Your task to perform on an android device: turn off smart reply in the gmail app Image 0: 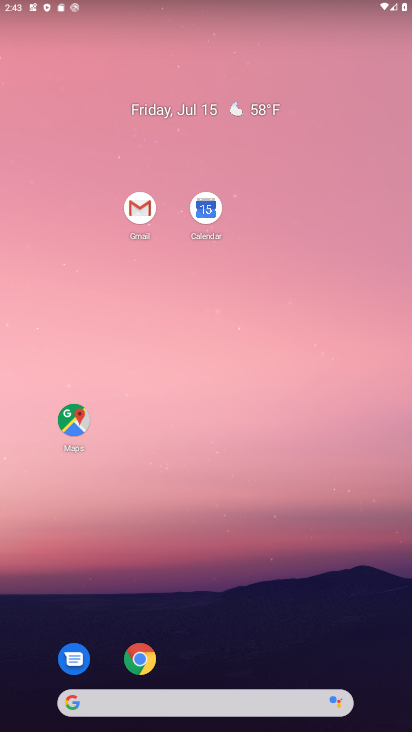
Step 0: click (134, 193)
Your task to perform on an android device: turn off smart reply in the gmail app Image 1: 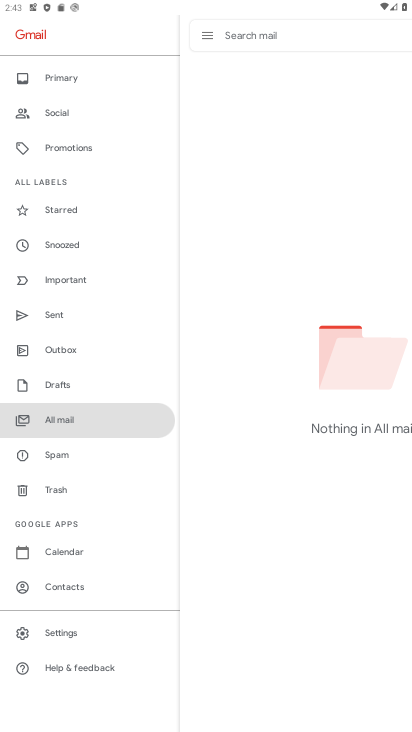
Step 1: click (90, 630)
Your task to perform on an android device: turn off smart reply in the gmail app Image 2: 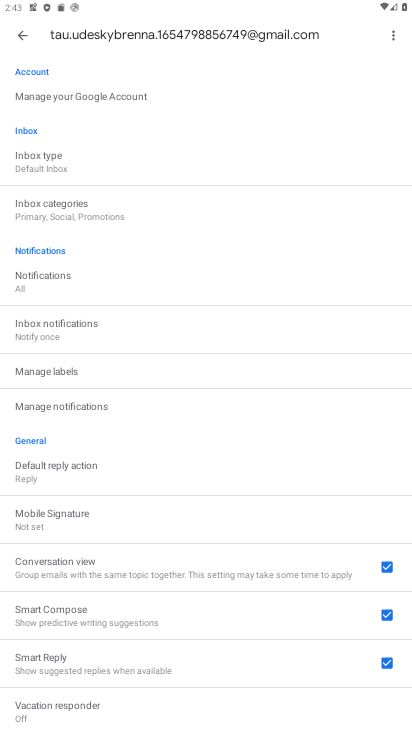
Step 2: click (392, 663)
Your task to perform on an android device: turn off smart reply in the gmail app Image 3: 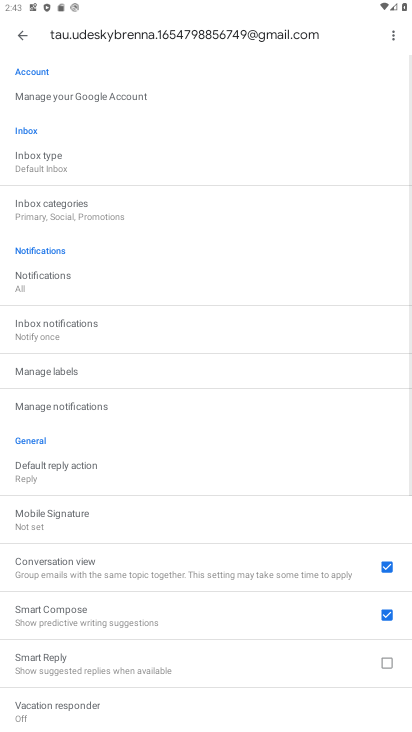
Step 3: task complete